Your task to perform on an android device: open a bookmark in the chrome app Image 0: 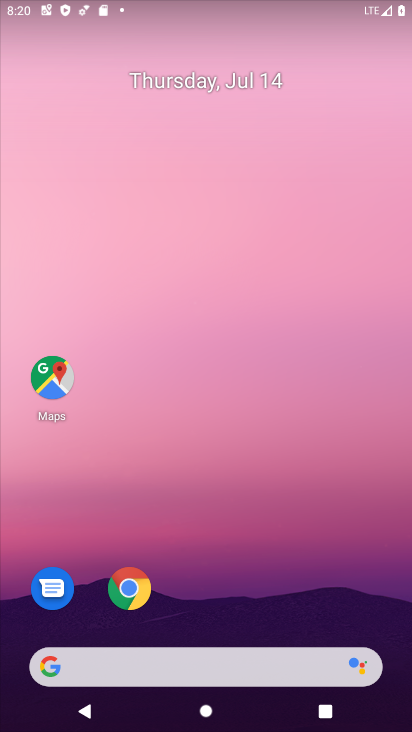
Step 0: drag from (395, 618) to (191, 0)
Your task to perform on an android device: open a bookmark in the chrome app Image 1: 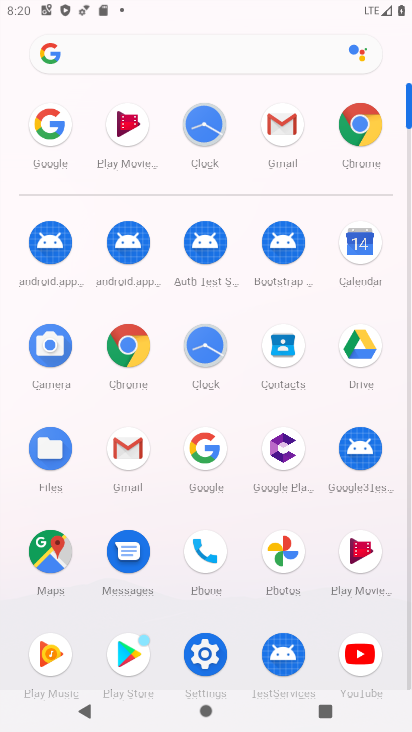
Step 1: click (347, 136)
Your task to perform on an android device: open a bookmark in the chrome app Image 2: 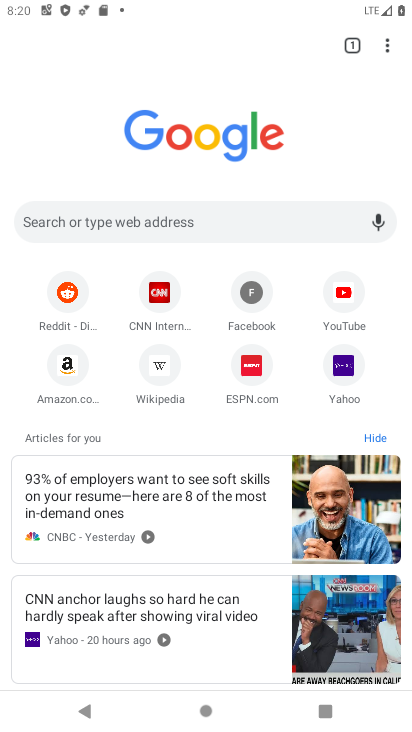
Step 2: click (382, 45)
Your task to perform on an android device: open a bookmark in the chrome app Image 3: 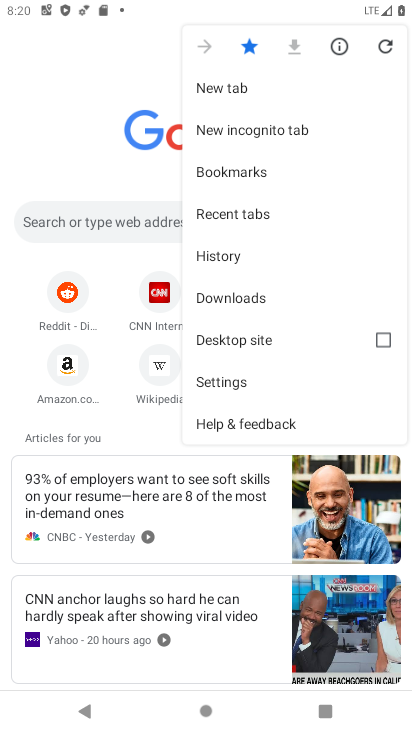
Step 3: click (250, 176)
Your task to perform on an android device: open a bookmark in the chrome app Image 4: 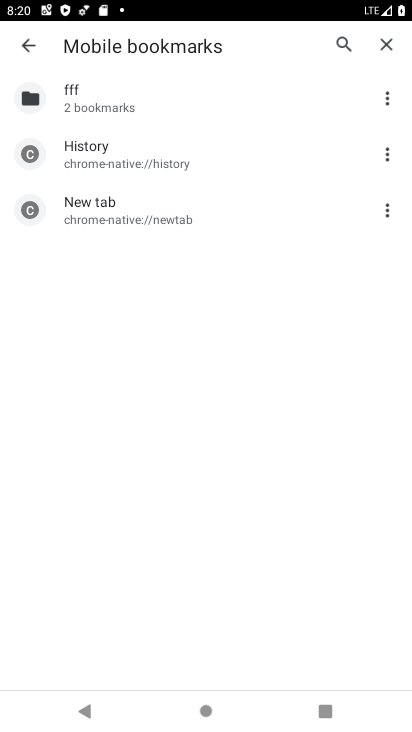
Step 4: task complete